Your task to perform on an android device: Open the Play Movies app and select the watchlist tab. Image 0: 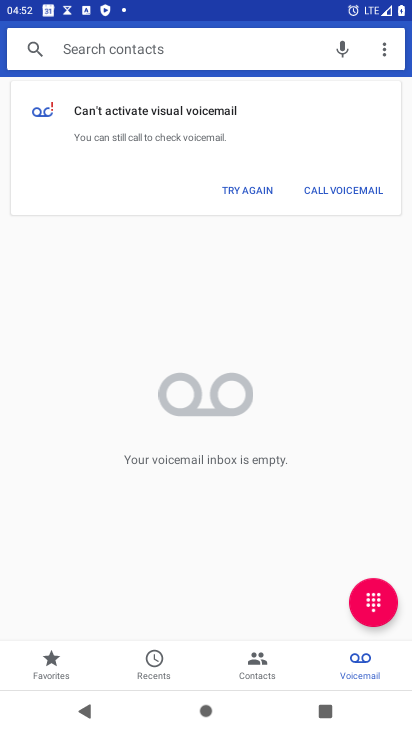
Step 0: press home button
Your task to perform on an android device: Open the Play Movies app and select the watchlist tab. Image 1: 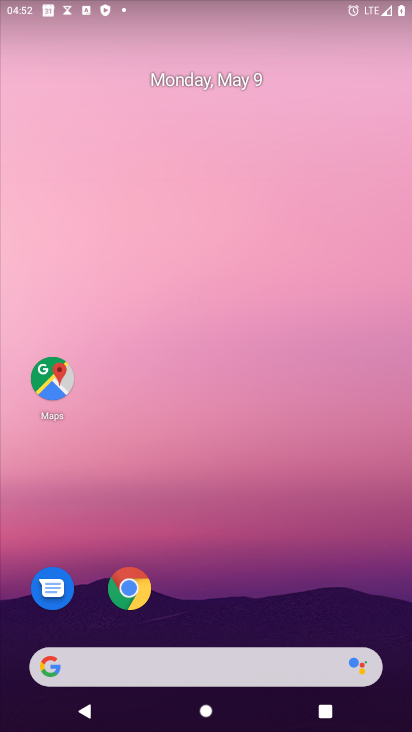
Step 1: drag from (259, 599) to (151, 58)
Your task to perform on an android device: Open the Play Movies app and select the watchlist tab. Image 2: 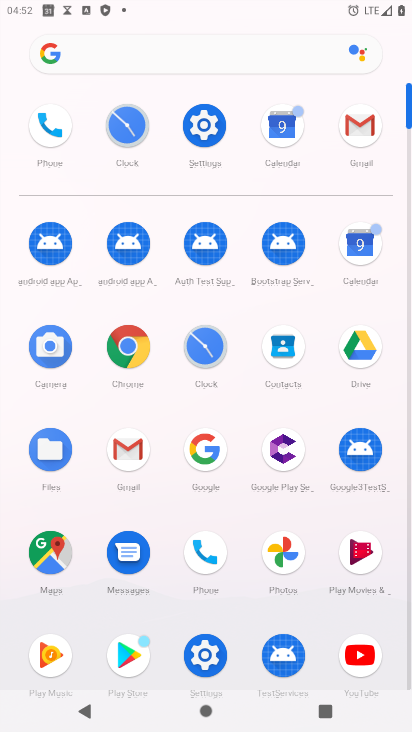
Step 2: click (359, 552)
Your task to perform on an android device: Open the Play Movies app and select the watchlist tab. Image 3: 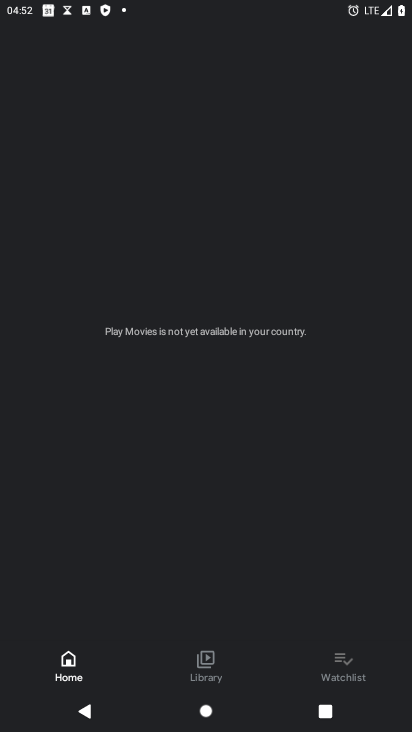
Step 3: task complete